Your task to perform on an android device: turn on notifications settings in the gmail app Image 0: 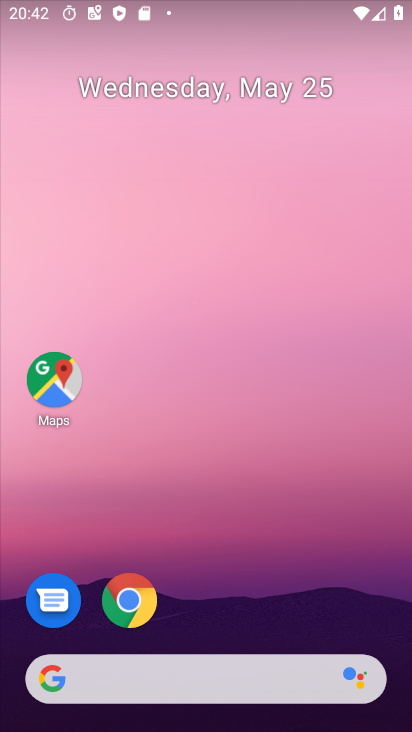
Step 0: drag from (333, 616) to (289, 183)
Your task to perform on an android device: turn on notifications settings in the gmail app Image 1: 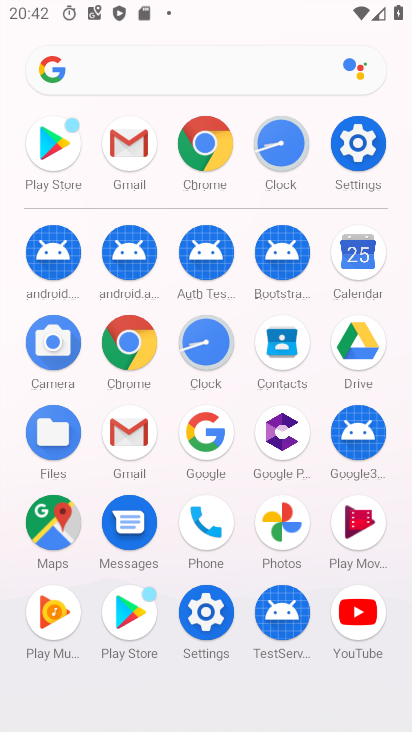
Step 1: click (141, 421)
Your task to perform on an android device: turn on notifications settings in the gmail app Image 2: 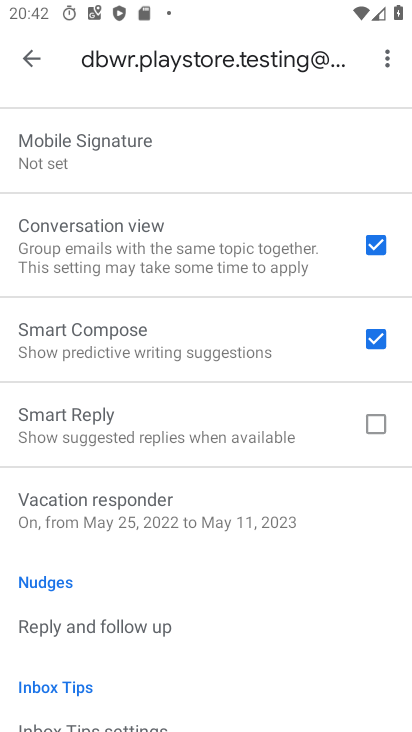
Step 2: drag from (100, 189) to (127, 689)
Your task to perform on an android device: turn on notifications settings in the gmail app Image 3: 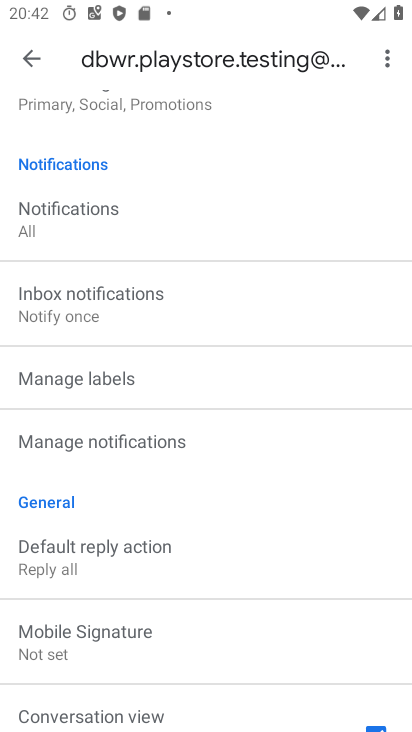
Step 3: click (83, 222)
Your task to perform on an android device: turn on notifications settings in the gmail app Image 4: 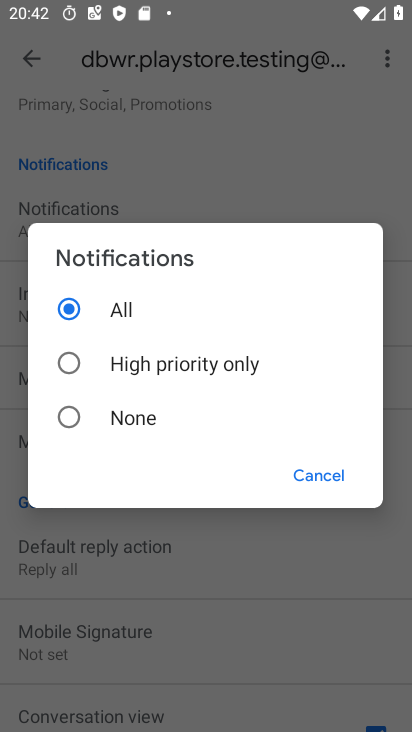
Step 4: task complete